Your task to perform on an android device: Open my contact list Image 0: 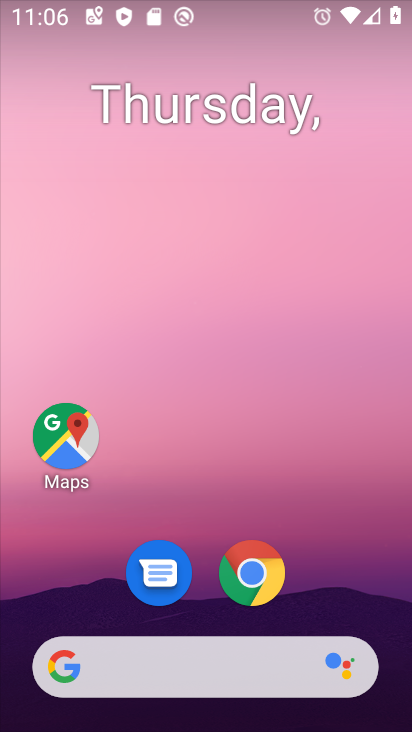
Step 0: drag from (366, 594) to (295, 250)
Your task to perform on an android device: Open my contact list Image 1: 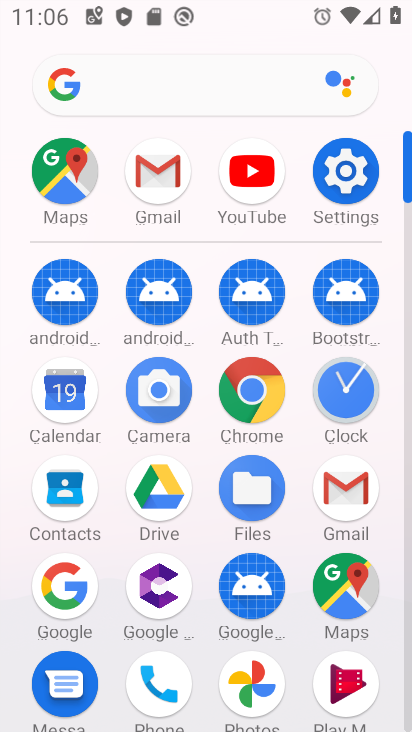
Step 1: click (72, 483)
Your task to perform on an android device: Open my contact list Image 2: 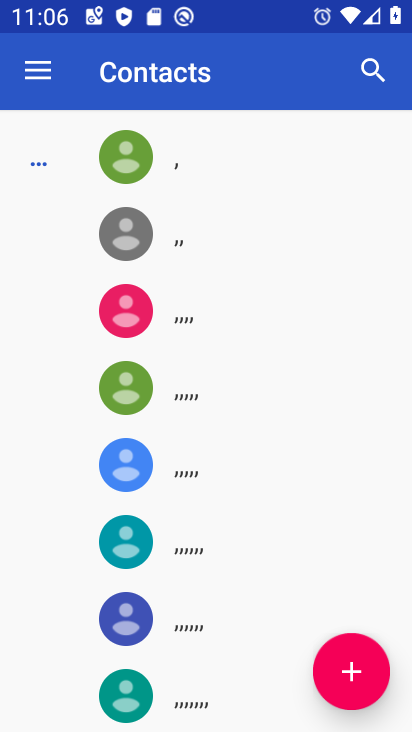
Step 2: task complete